Your task to perform on an android device: Open ESPN.com Image 0: 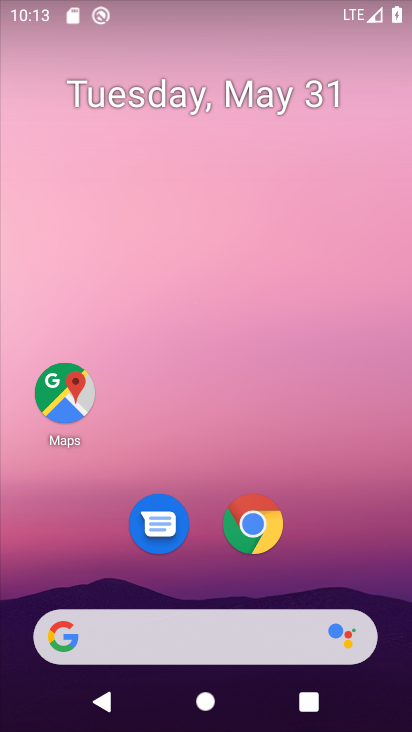
Step 0: click (208, 642)
Your task to perform on an android device: Open ESPN.com Image 1: 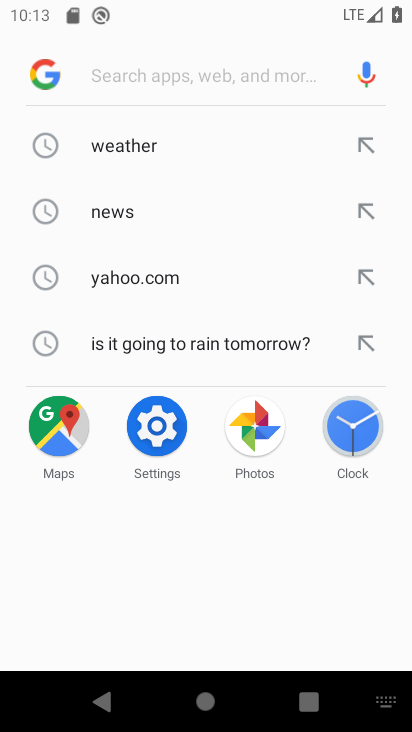
Step 1: type "espn.com"
Your task to perform on an android device: Open ESPN.com Image 2: 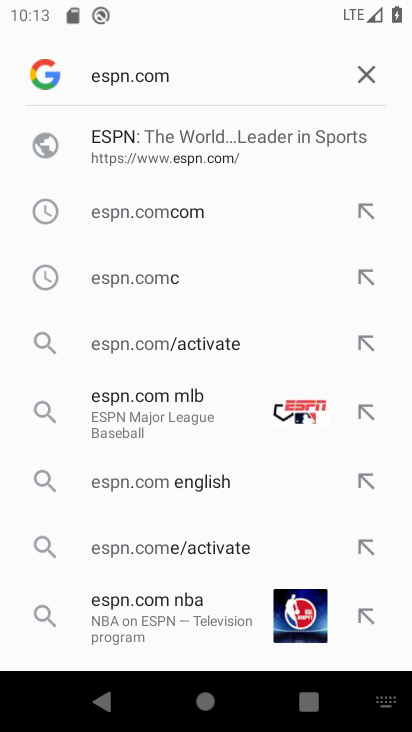
Step 2: click (154, 143)
Your task to perform on an android device: Open ESPN.com Image 3: 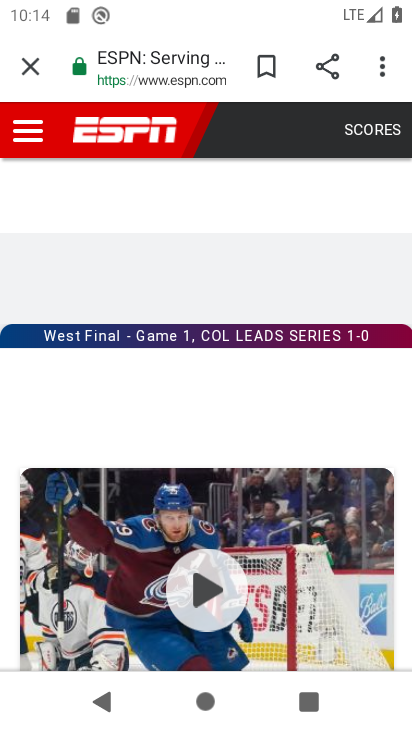
Step 3: task complete